Your task to perform on an android device: Search for seafood restaurants on Google Maps Image 0: 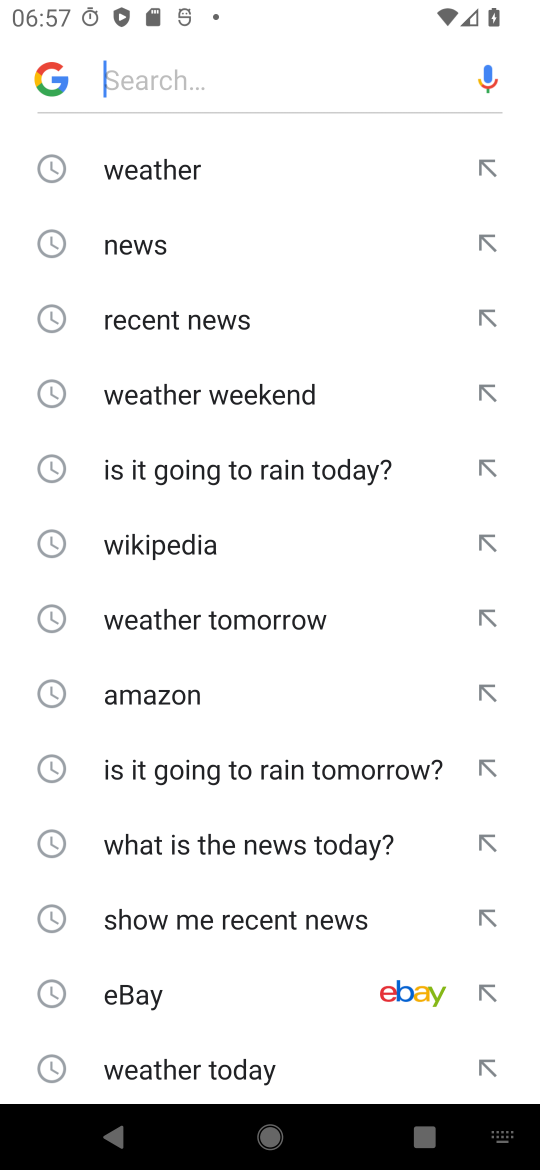
Step 0: press home button
Your task to perform on an android device: Search for seafood restaurants on Google Maps Image 1: 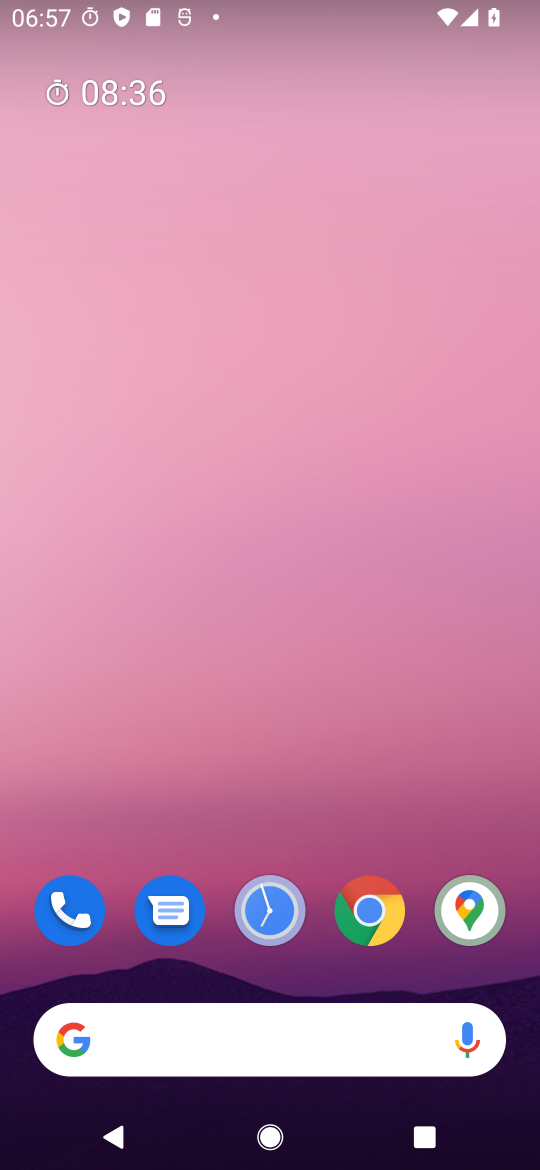
Step 1: drag from (391, 1053) to (460, 117)
Your task to perform on an android device: Search for seafood restaurants on Google Maps Image 2: 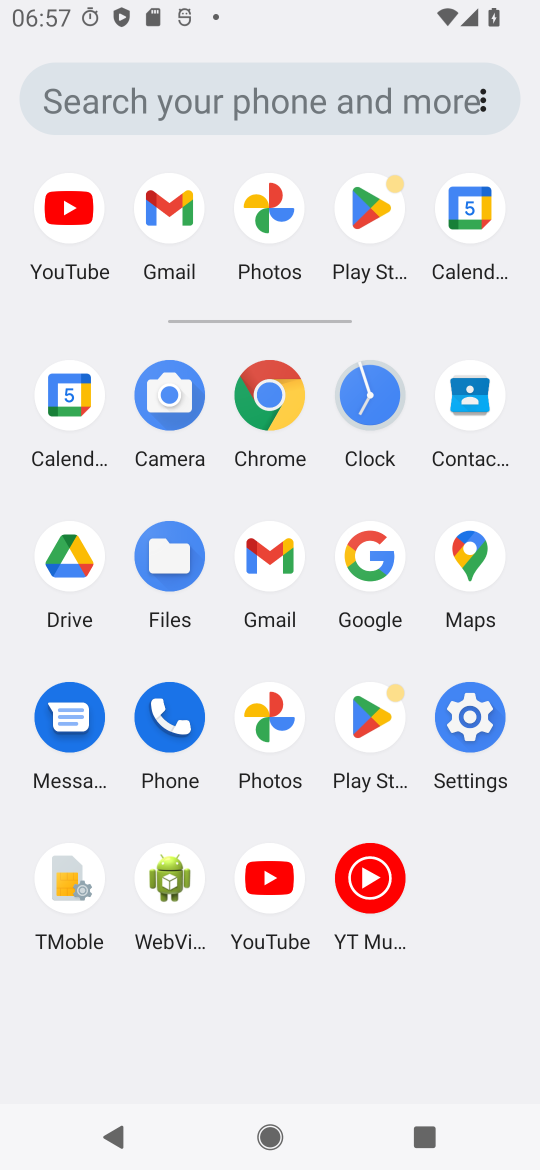
Step 2: click (472, 567)
Your task to perform on an android device: Search for seafood restaurants on Google Maps Image 3: 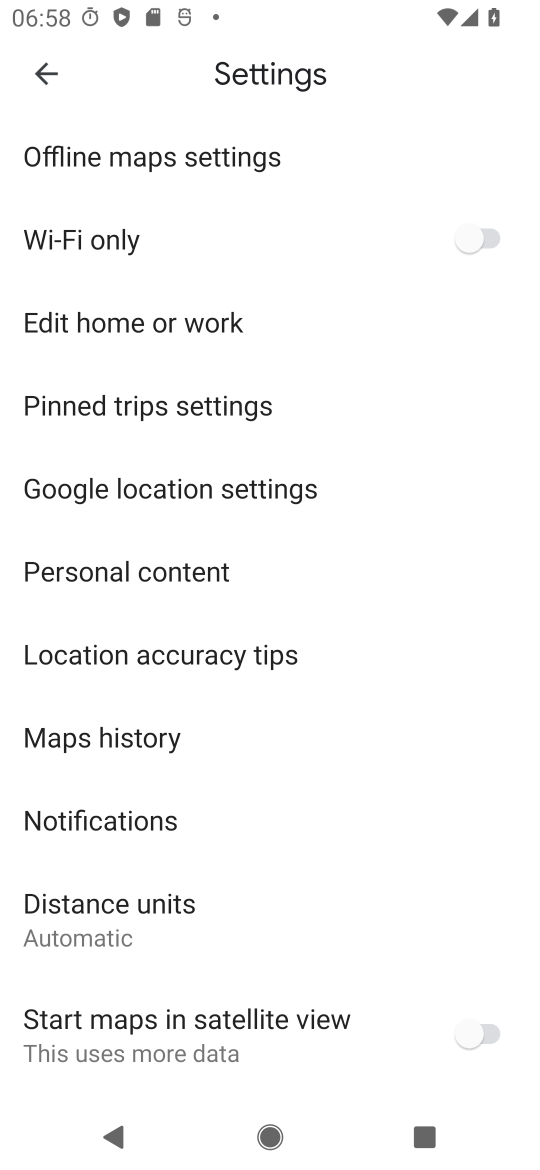
Step 3: press back button
Your task to perform on an android device: Search for seafood restaurants on Google Maps Image 4: 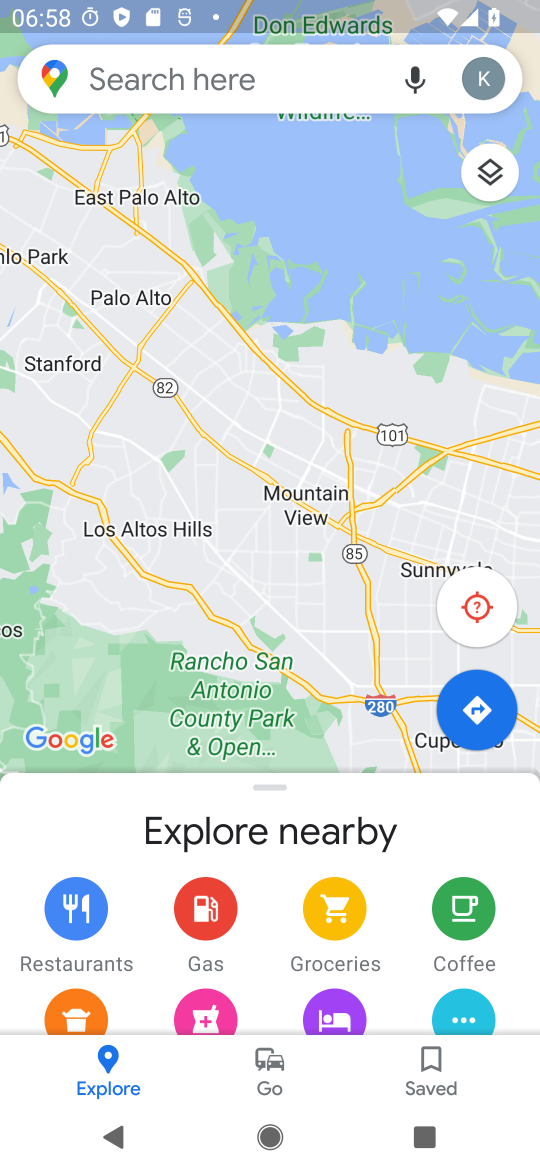
Step 4: click (211, 88)
Your task to perform on an android device: Search for seafood restaurants on Google Maps Image 5: 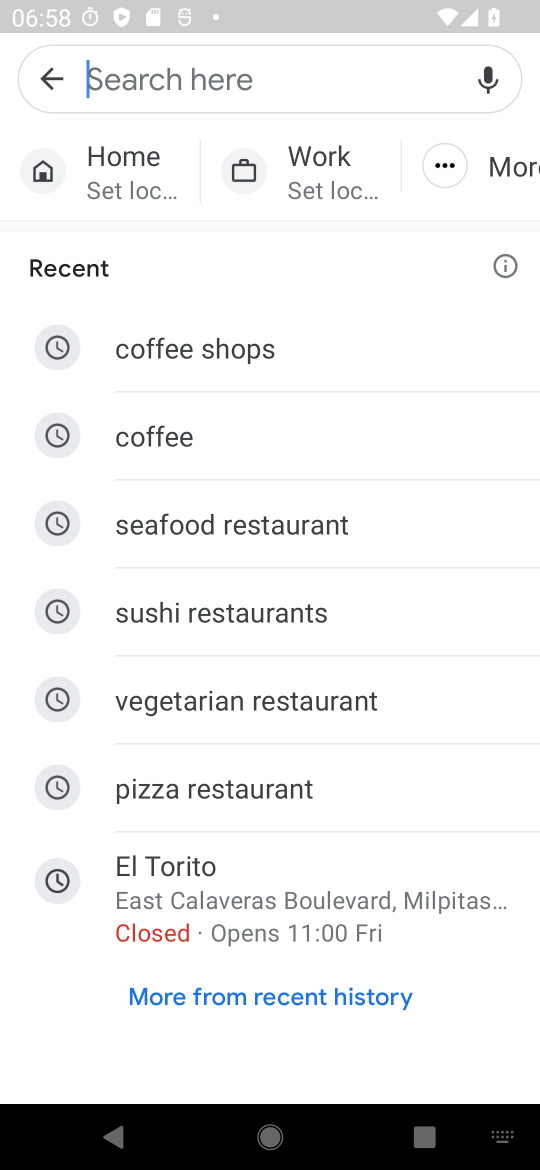
Step 5: click (185, 530)
Your task to perform on an android device: Search for seafood restaurants on Google Maps Image 6: 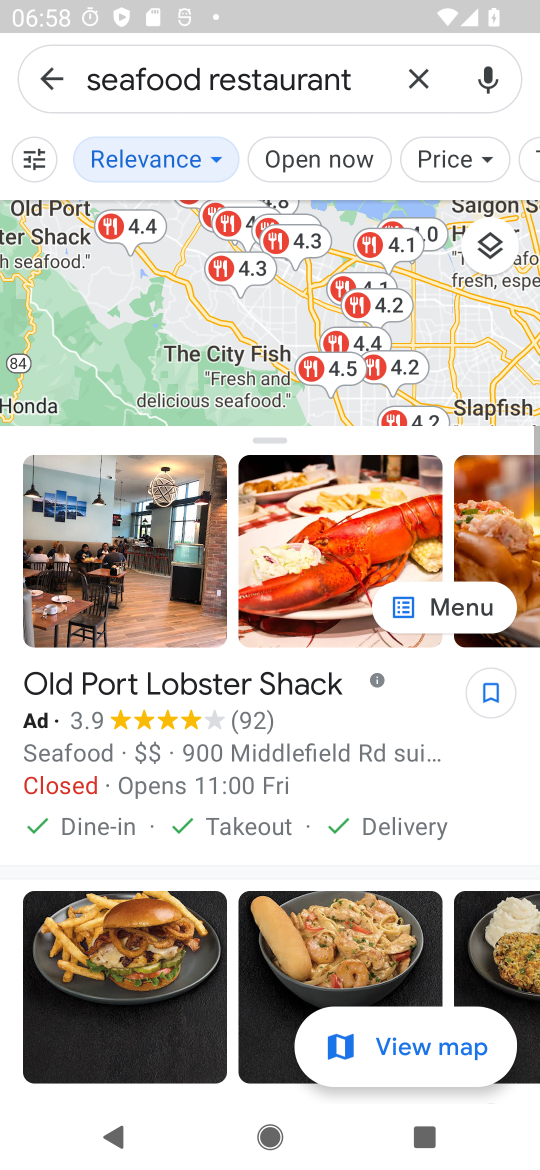
Step 6: task complete